Your task to perform on an android device: Search for macbook pro 15 inch on costco, select the first entry, add it to the cart, then select checkout. Image 0: 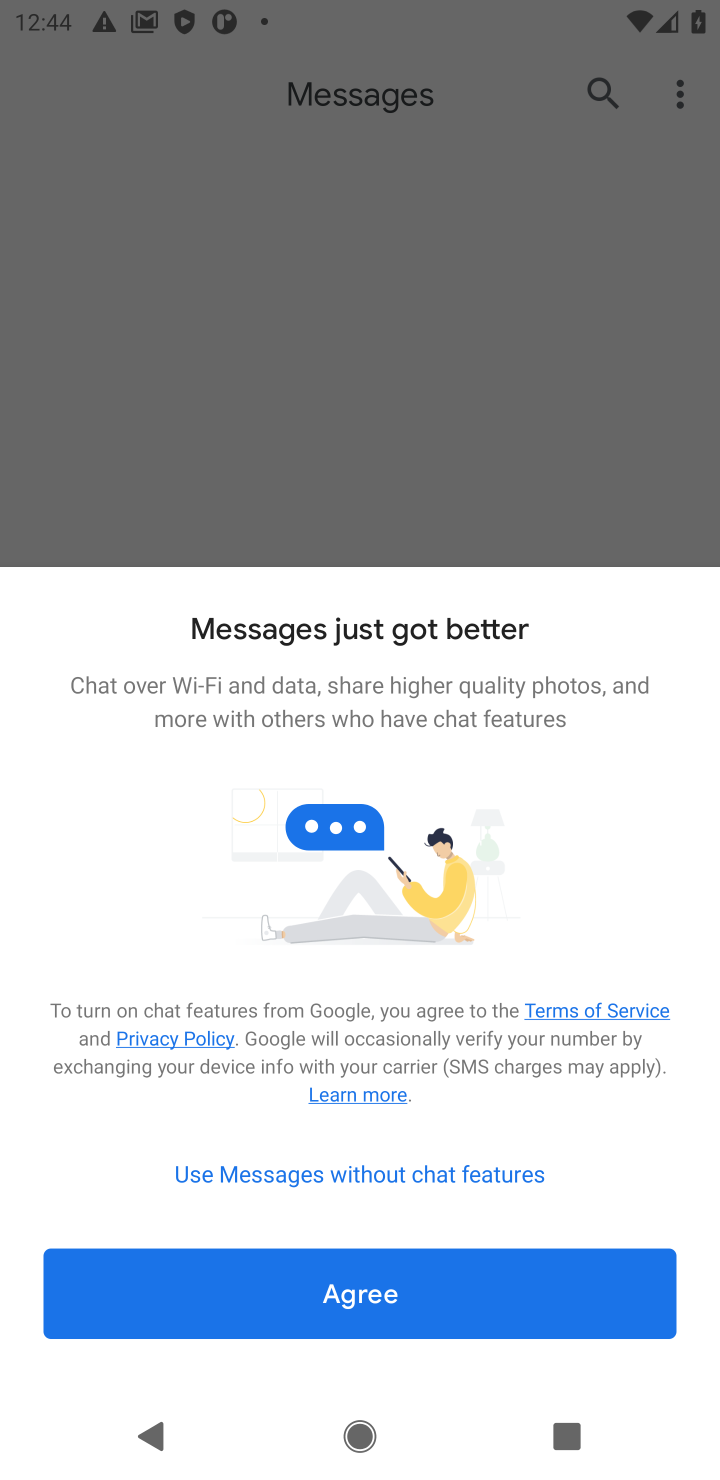
Step 0: press home button
Your task to perform on an android device: Search for macbook pro 15 inch on costco, select the first entry, add it to the cart, then select checkout. Image 1: 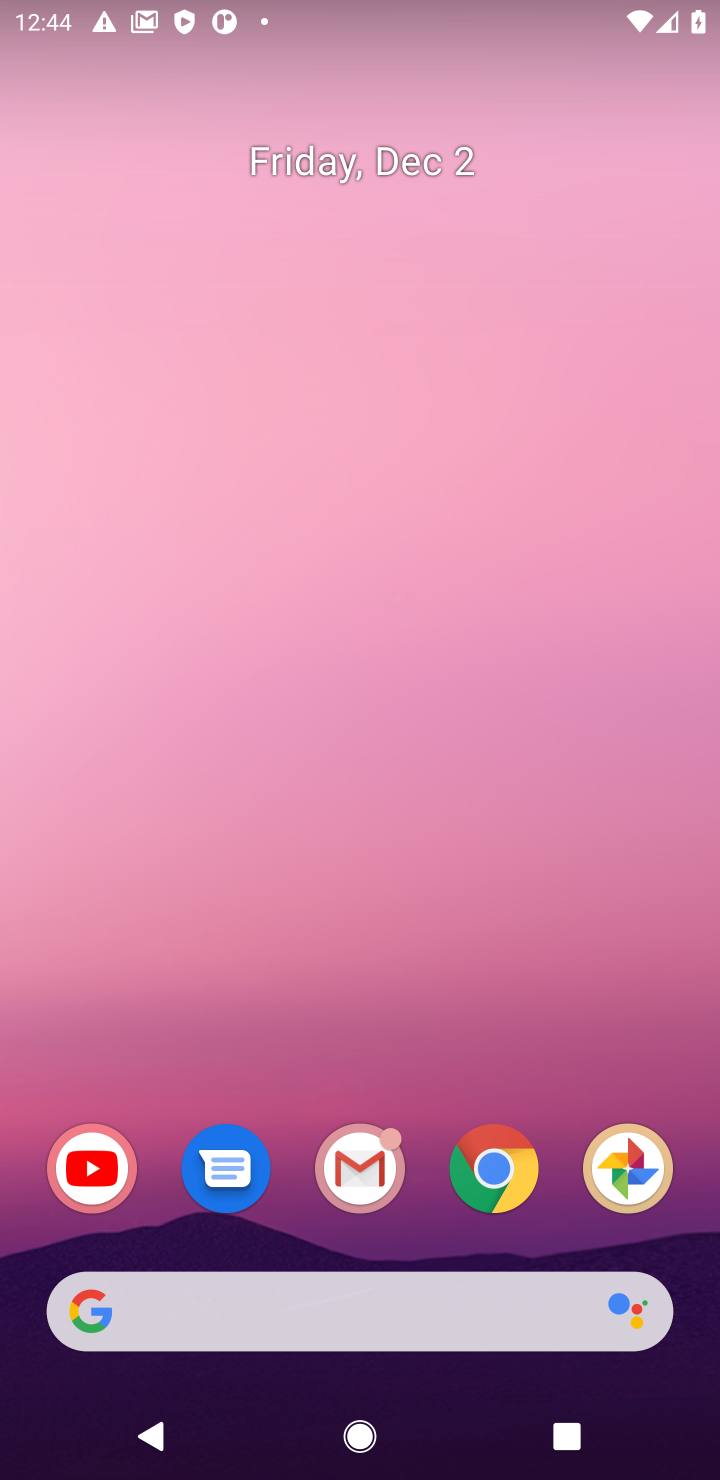
Step 1: click (506, 1164)
Your task to perform on an android device: Search for macbook pro 15 inch on costco, select the first entry, add it to the cart, then select checkout. Image 2: 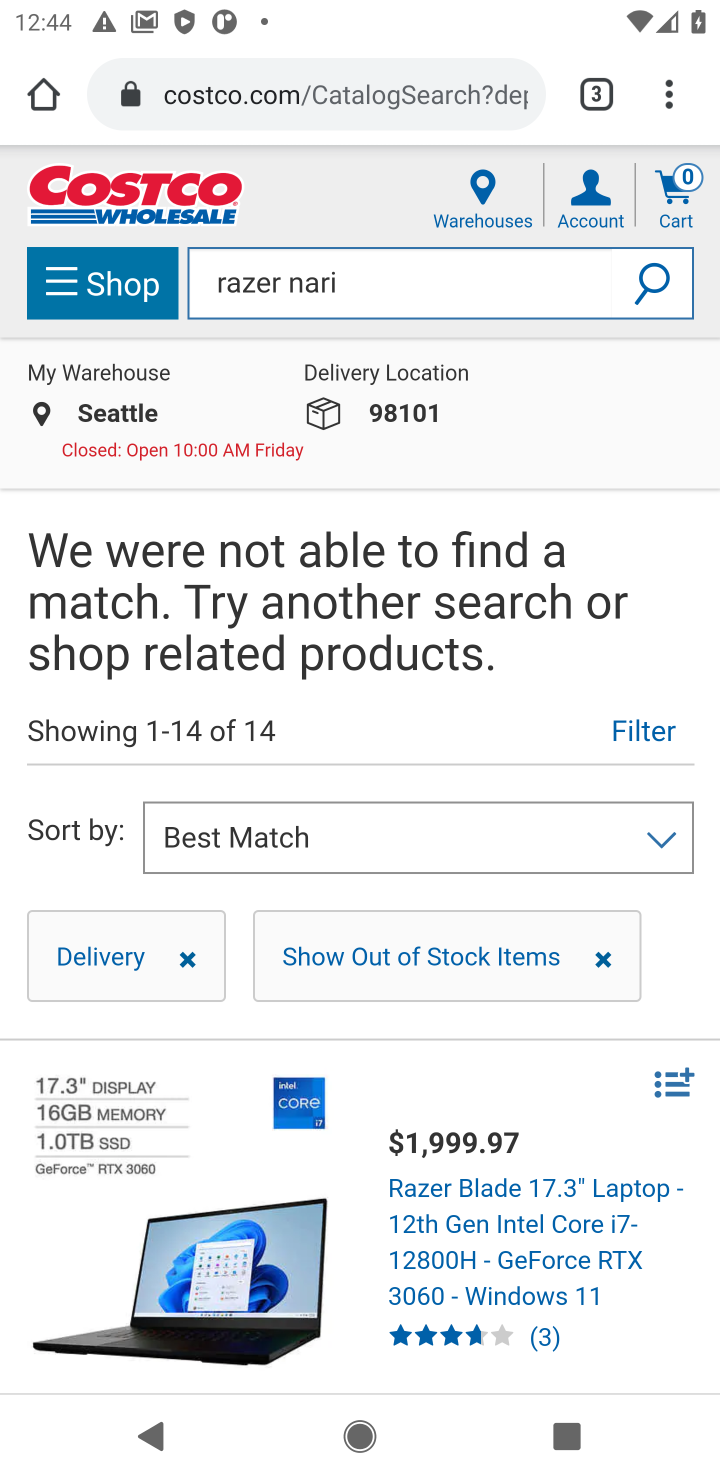
Step 2: click (347, 276)
Your task to perform on an android device: Search for macbook pro 15 inch on costco, select the first entry, add it to the cart, then select checkout. Image 3: 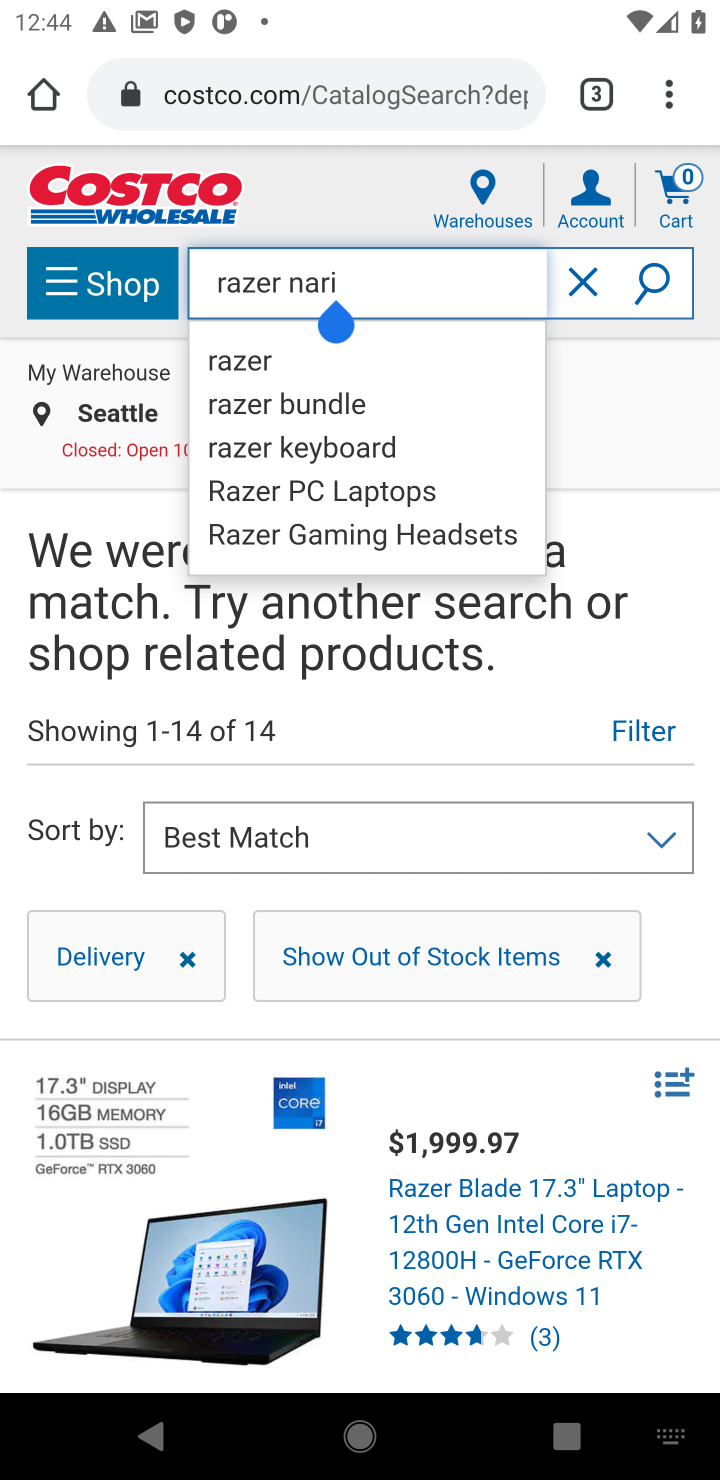
Step 3: click (584, 284)
Your task to perform on an android device: Search for macbook pro 15 inch on costco, select the first entry, add it to the cart, then select checkout. Image 4: 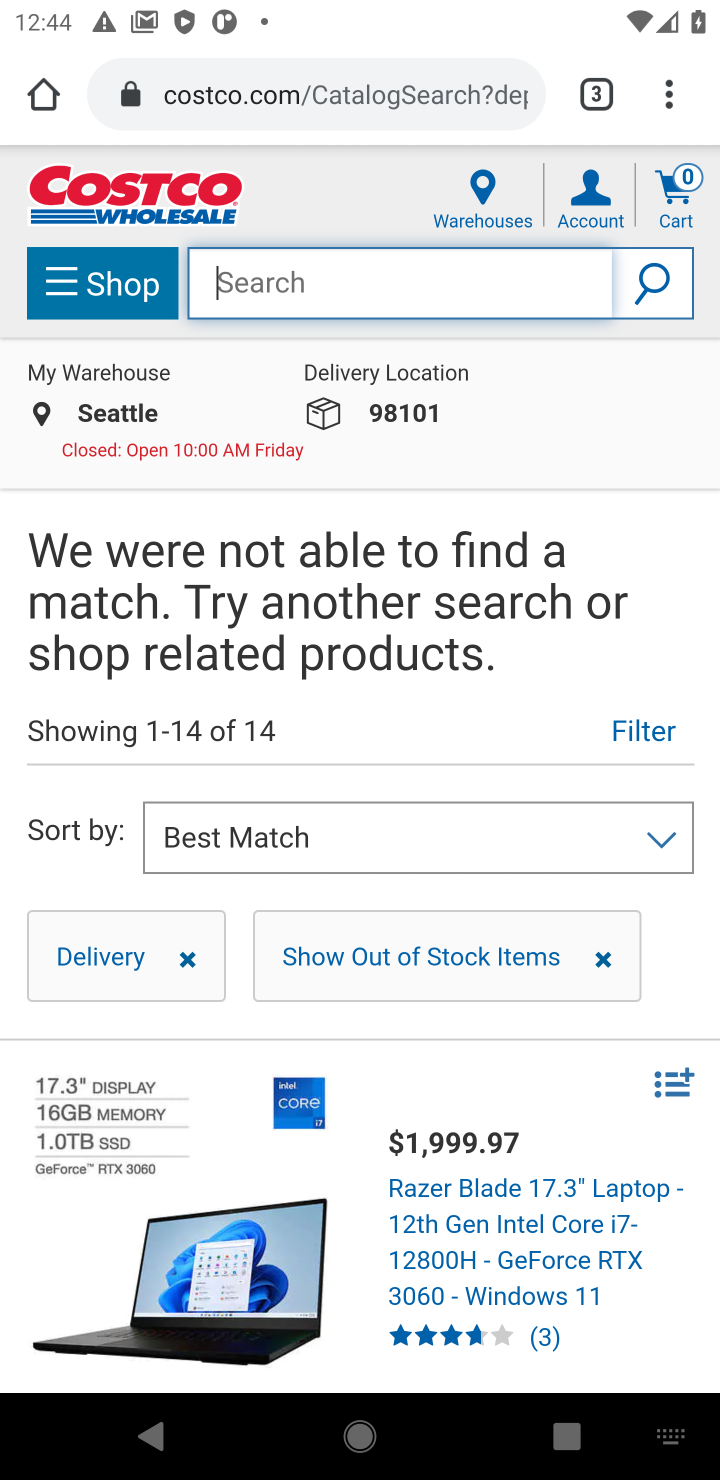
Step 4: type "macbook pro 15 inch"
Your task to perform on an android device: Search for macbook pro 15 inch on costco, select the first entry, add it to the cart, then select checkout. Image 5: 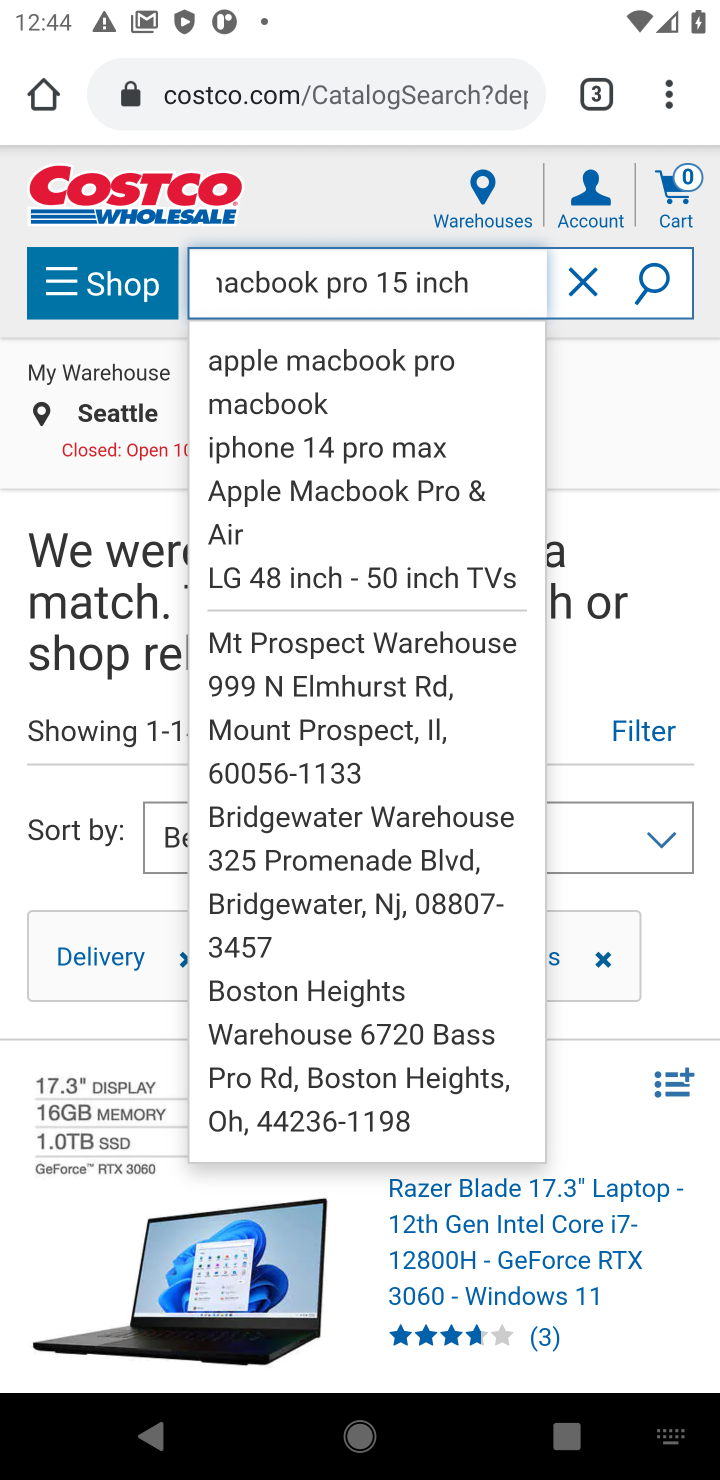
Step 5: click (648, 290)
Your task to perform on an android device: Search for macbook pro 15 inch on costco, select the first entry, add it to the cart, then select checkout. Image 6: 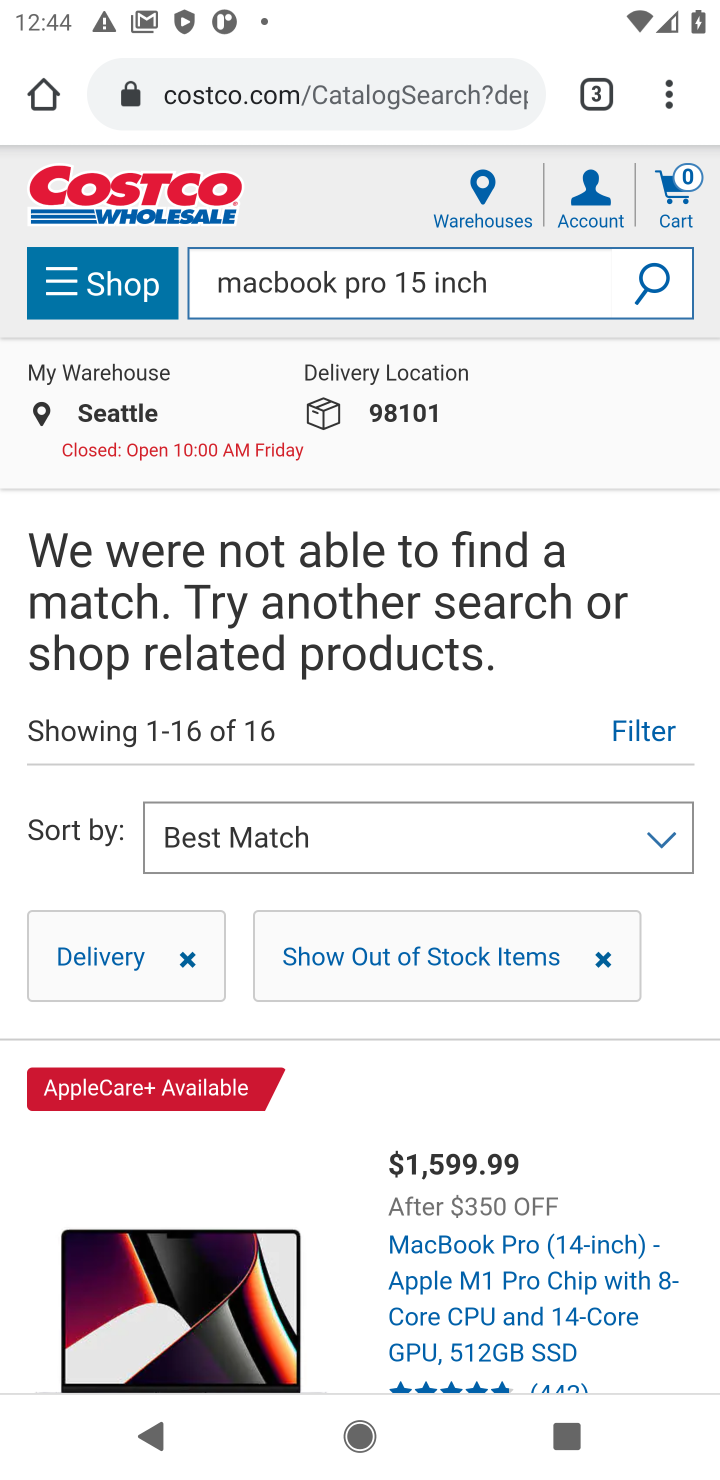
Step 6: task complete